Your task to perform on an android device: open chrome and create a bookmark for the current page Image 0: 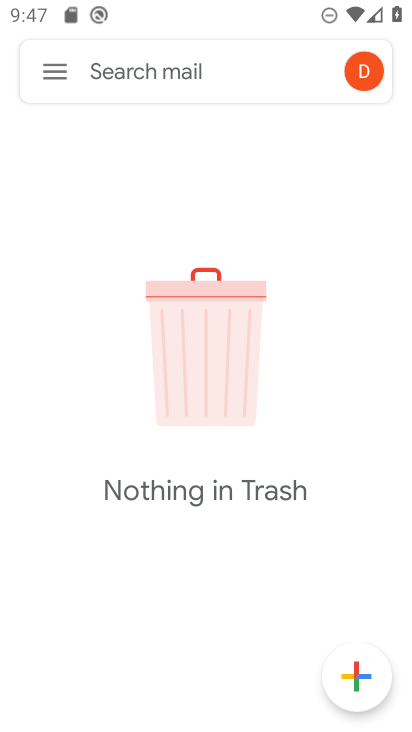
Step 0: press home button
Your task to perform on an android device: open chrome and create a bookmark for the current page Image 1: 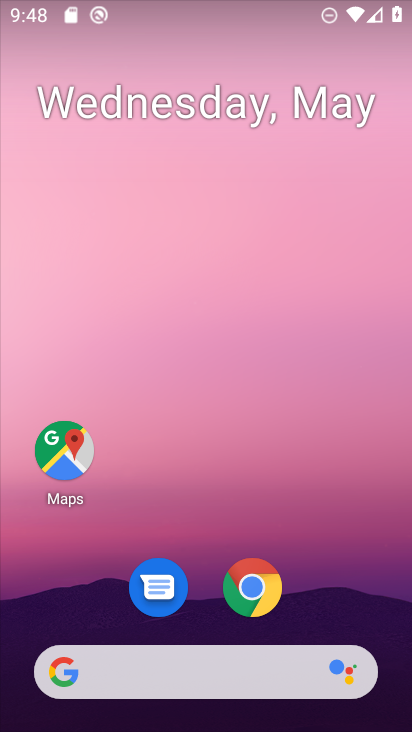
Step 1: click (261, 584)
Your task to perform on an android device: open chrome and create a bookmark for the current page Image 2: 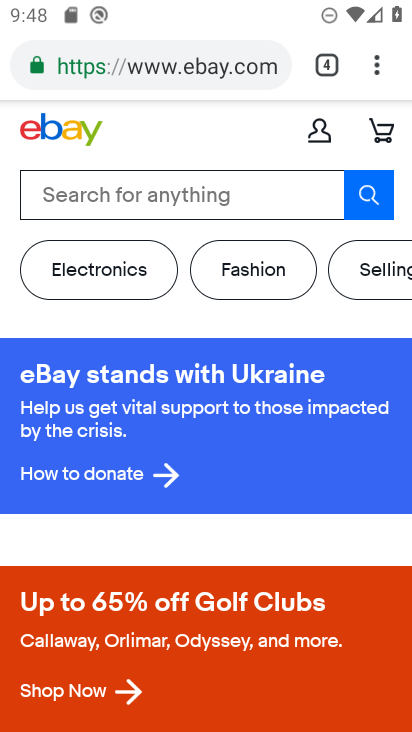
Step 2: click (378, 71)
Your task to perform on an android device: open chrome and create a bookmark for the current page Image 3: 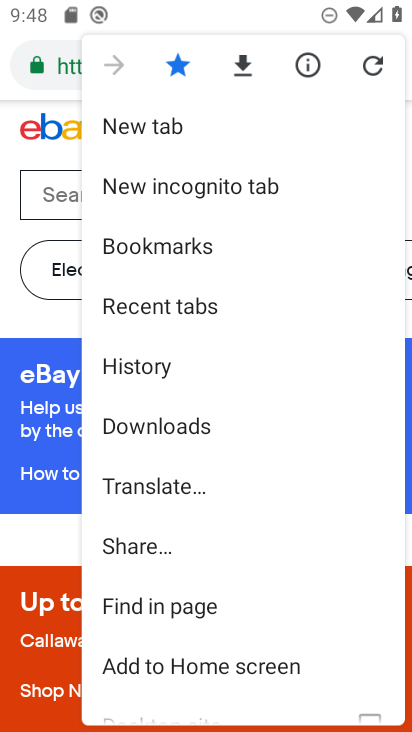
Step 3: task complete